Your task to perform on an android device: turn vacation reply on in the gmail app Image 0: 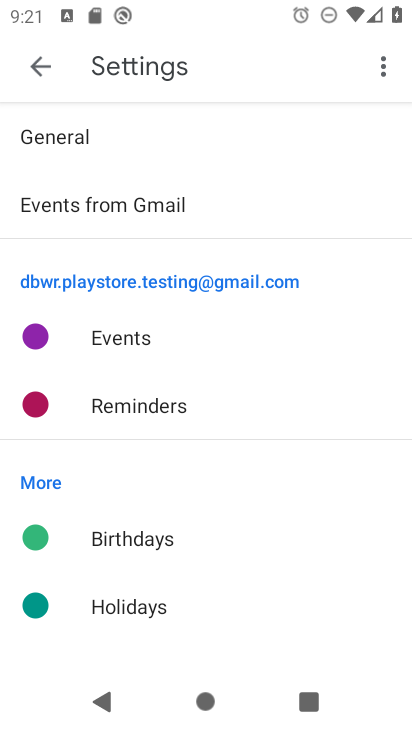
Step 0: press home button
Your task to perform on an android device: turn vacation reply on in the gmail app Image 1: 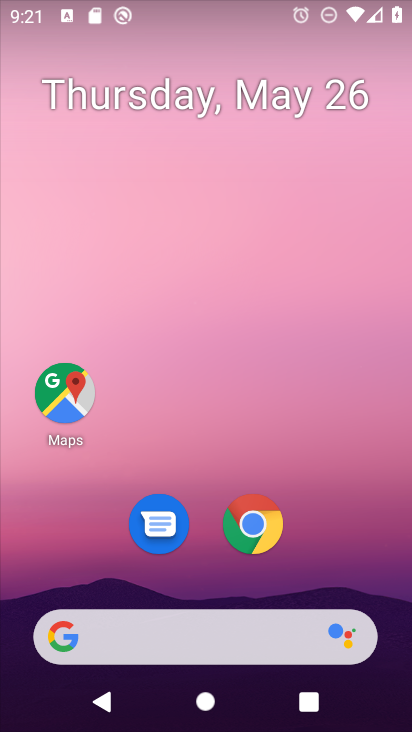
Step 1: drag from (326, 535) to (364, 54)
Your task to perform on an android device: turn vacation reply on in the gmail app Image 2: 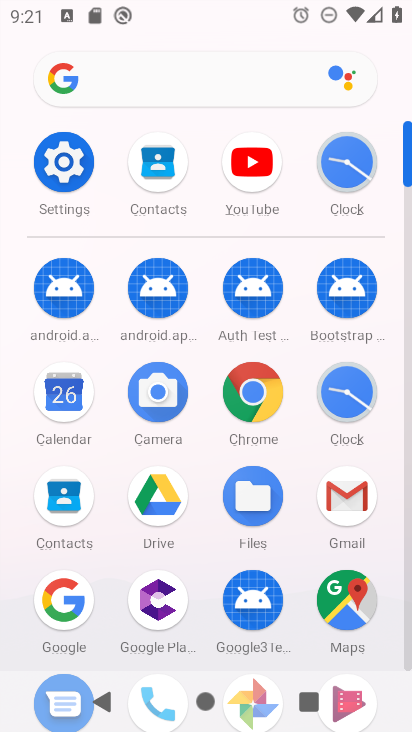
Step 2: click (340, 488)
Your task to perform on an android device: turn vacation reply on in the gmail app Image 3: 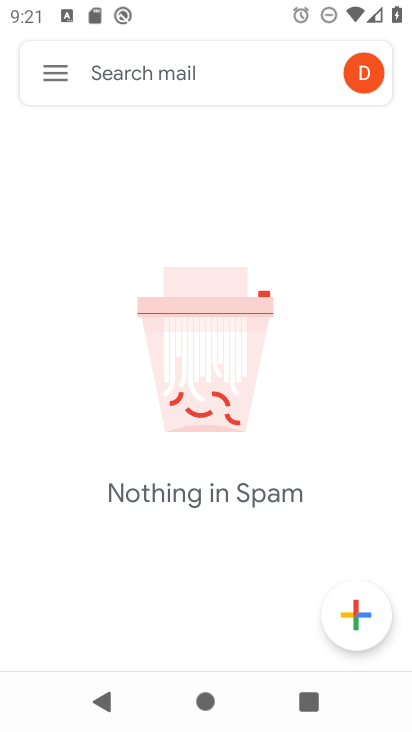
Step 3: click (52, 62)
Your task to perform on an android device: turn vacation reply on in the gmail app Image 4: 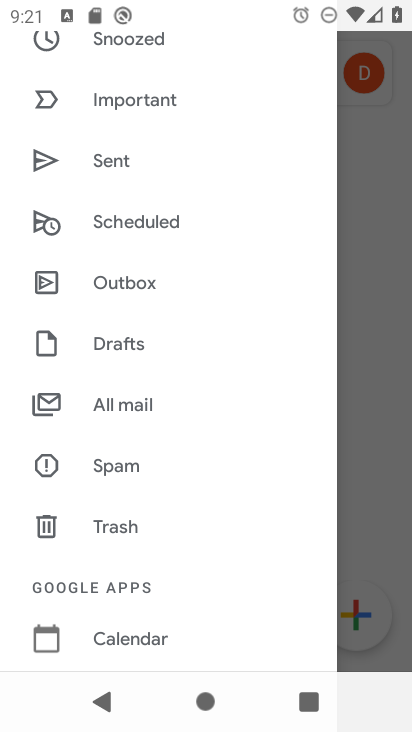
Step 4: drag from (175, 467) to (186, 218)
Your task to perform on an android device: turn vacation reply on in the gmail app Image 5: 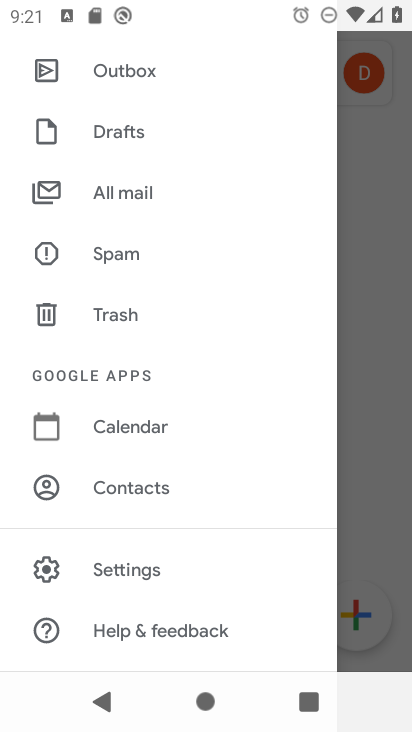
Step 5: click (136, 557)
Your task to perform on an android device: turn vacation reply on in the gmail app Image 6: 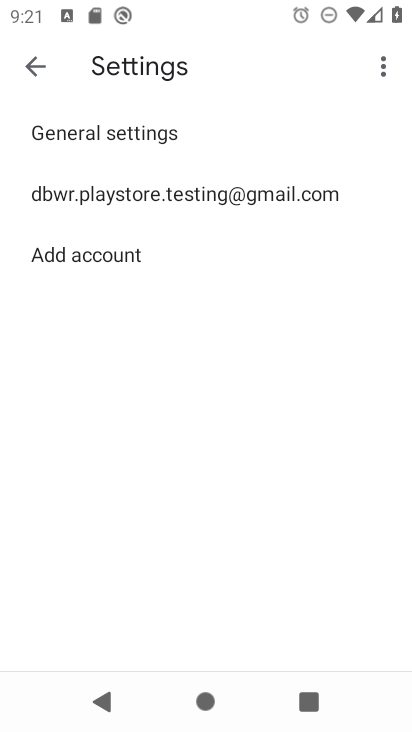
Step 6: click (226, 183)
Your task to perform on an android device: turn vacation reply on in the gmail app Image 7: 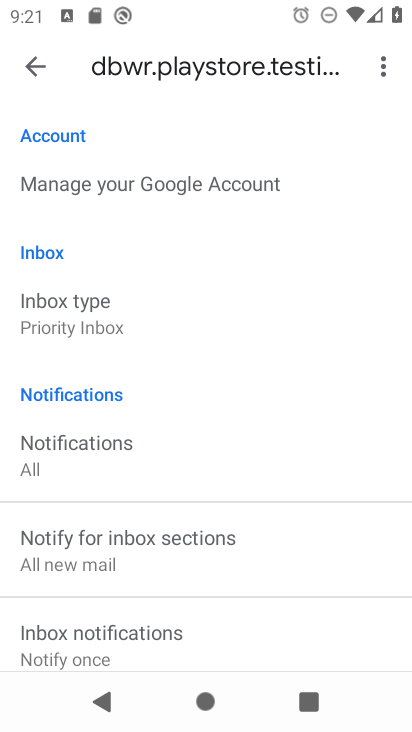
Step 7: drag from (225, 566) to (235, 101)
Your task to perform on an android device: turn vacation reply on in the gmail app Image 8: 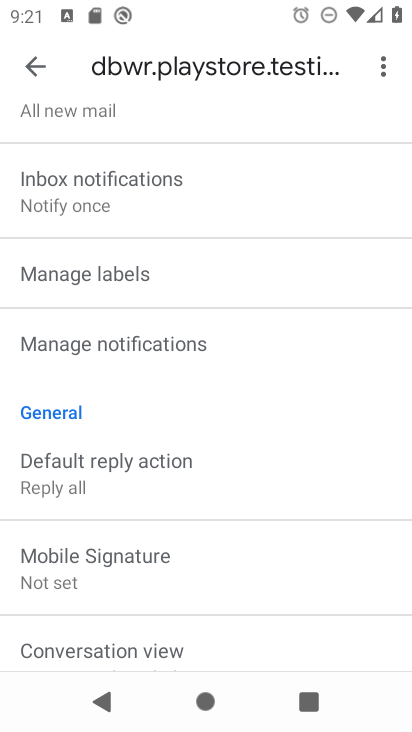
Step 8: drag from (182, 460) to (186, 118)
Your task to perform on an android device: turn vacation reply on in the gmail app Image 9: 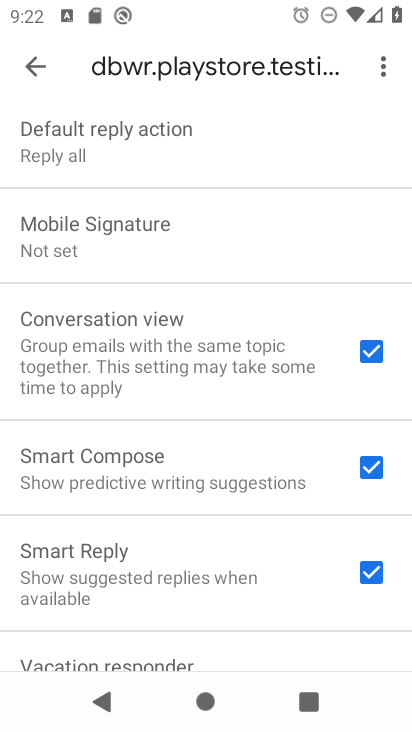
Step 9: drag from (170, 566) to (205, 292)
Your task to perform on an android device: turn vacation reply on in the gmail app Image 10: 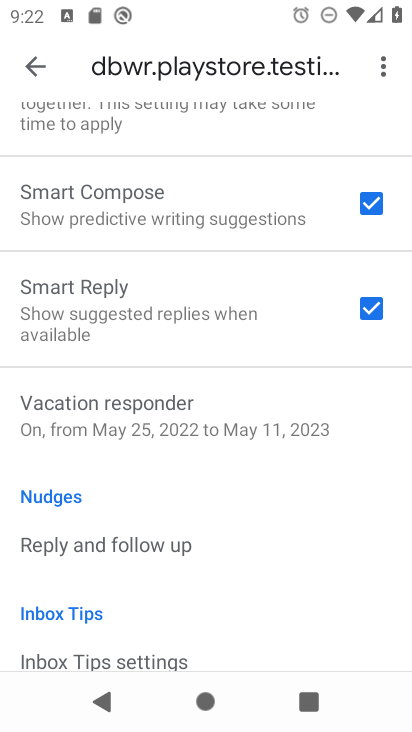
Step 10: click (200, 406)
Your task to perform on an android device: turn vacation reply on in the gmail app Image 11: 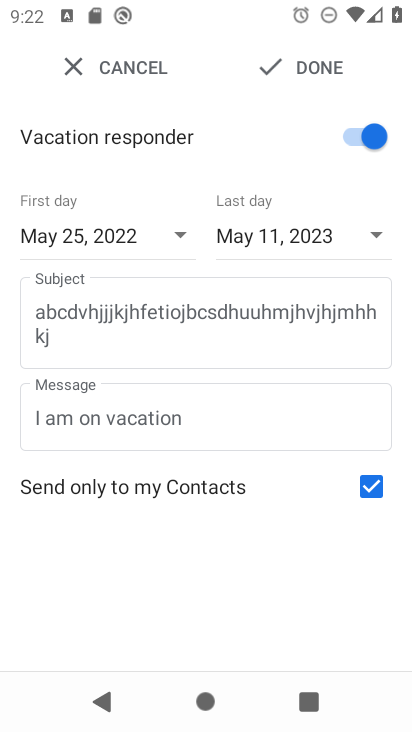
Step 11: task complete